Your task to perform on an android device: read, delete, or share a saved page in the chrome app Image 0: 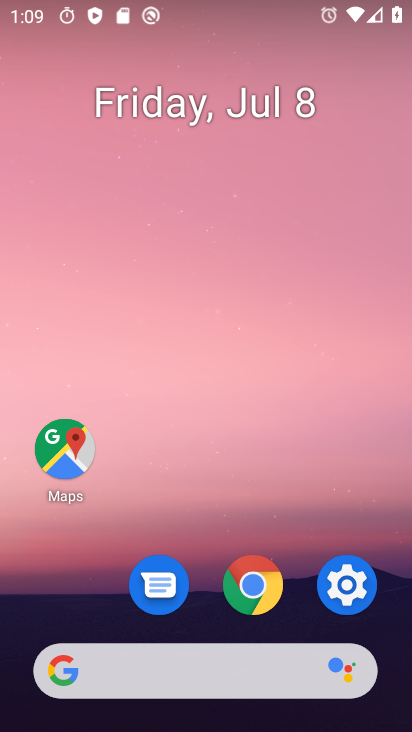
Step 0: click (267, 586)
Your task to perform on an android device: read, delete, or share a saved page in the chrome app Image 1: 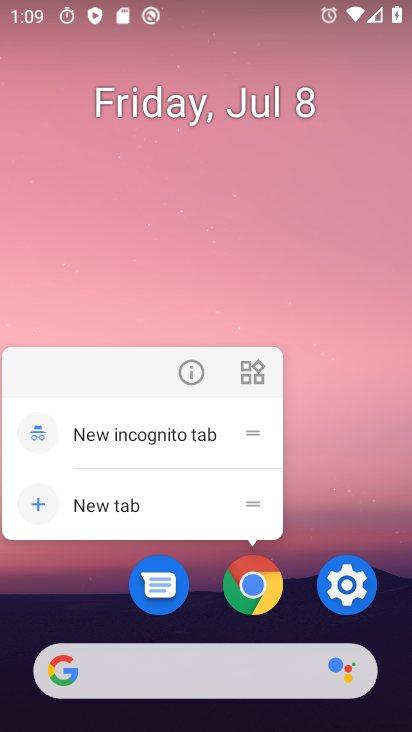
Step 1: click (262, 570)
Your task to perform on an android device: read, delete, or share a saved page in the chrome app Image 2: 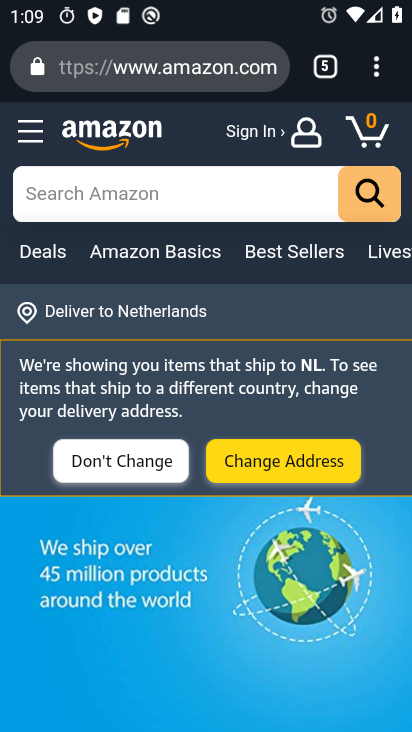
Step 2: click (377, 73)
Your task to perform on an android device: read, delete, or share a saved page in the chrome app Image 3: 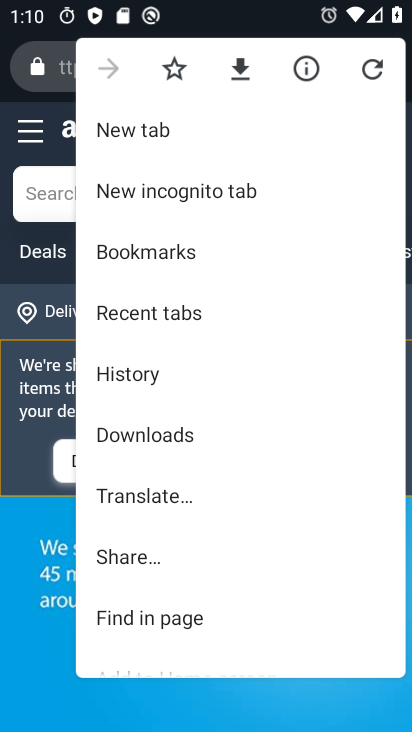
Step 3: click (188, 548)
Your task to perform on an android device: read, delete, or share a saved page in the chrome app Image 4: 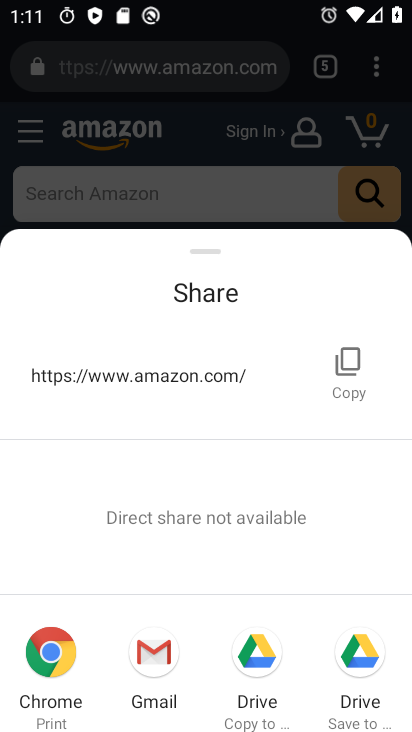
Step 4: task complete